Your task to perform on an android device: Show me the alarms in the clock app Image 0: 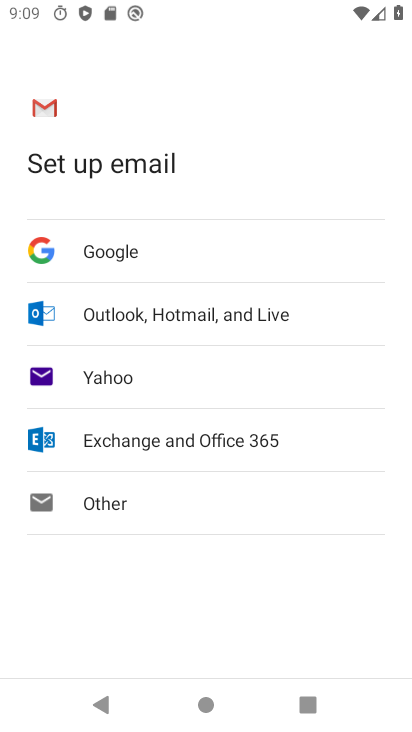
Step 0: click (109, 712)
Your task to perform on an android device: Show me the alarms in the clock app Image 1: 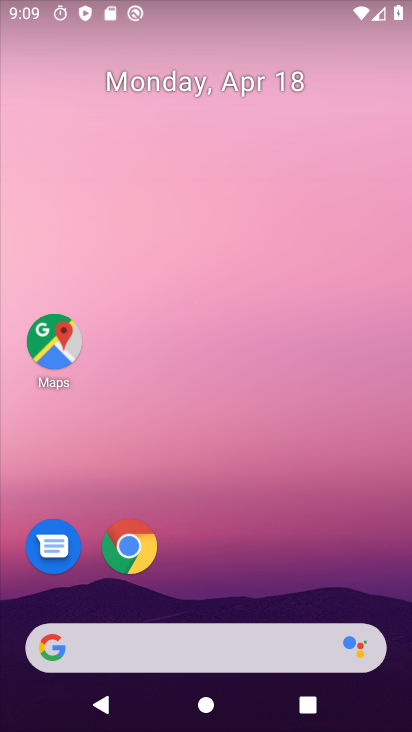
Step 1: drag from (289, 525) to (411, 155)
Your task to perform on an android device: Show me the alarms in the clock app Image 2: 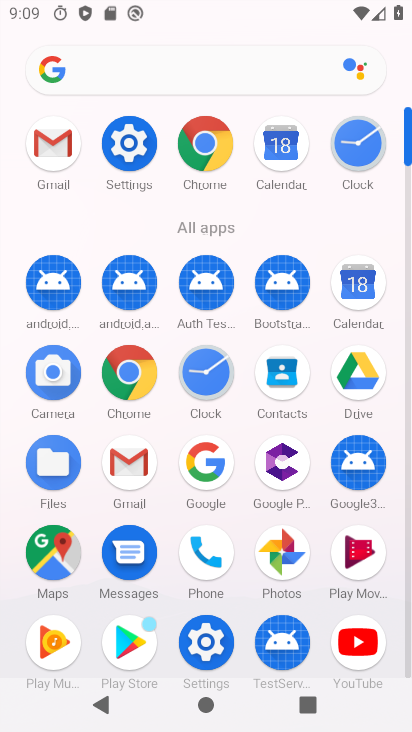
Step 2: click (344, 142)
Your task to perform on an android device: Show me the alarms in the clock app Image 3: 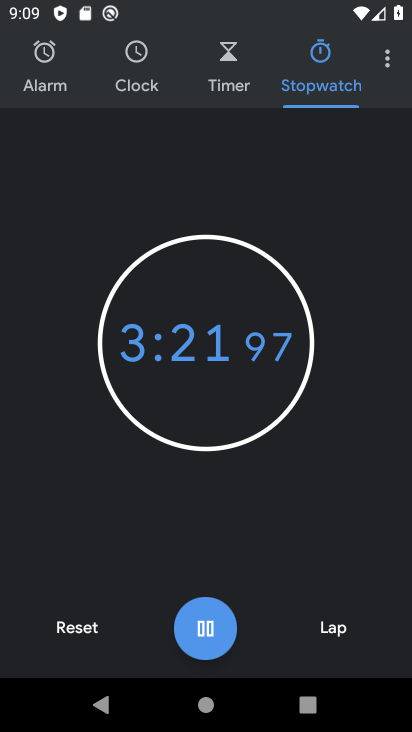
Step 3: click (32, 78)
Your task to perform on an android device: Show me the alarms in the clock app Image 4: 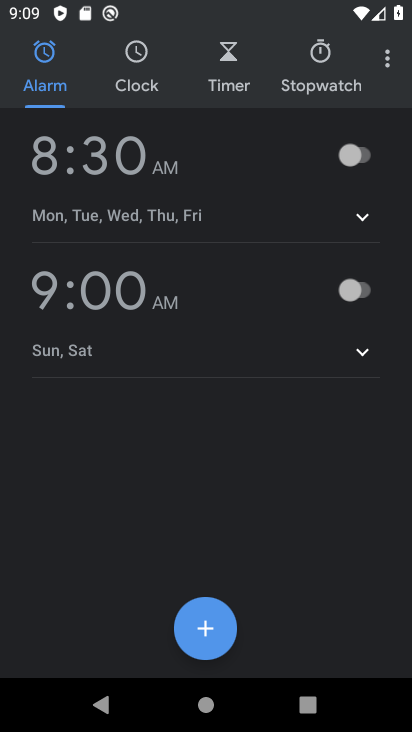
Step 4: click (201, 171)
Your task to perform on an android device: Show me the alarms in the clock app Image 5: 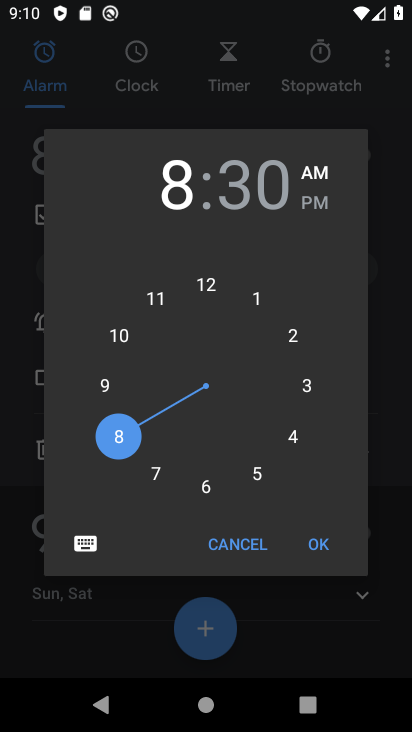
Step 5: task complete